Your task to perform on an android device: change keyboard looks Image 0: 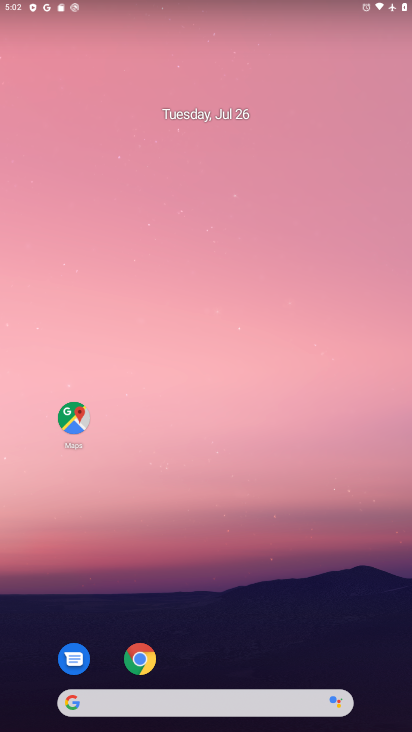
Step 0: drag from (214, 660) to (228, 0)
Your task to perform on an android device: change keyboard looks Image 1: 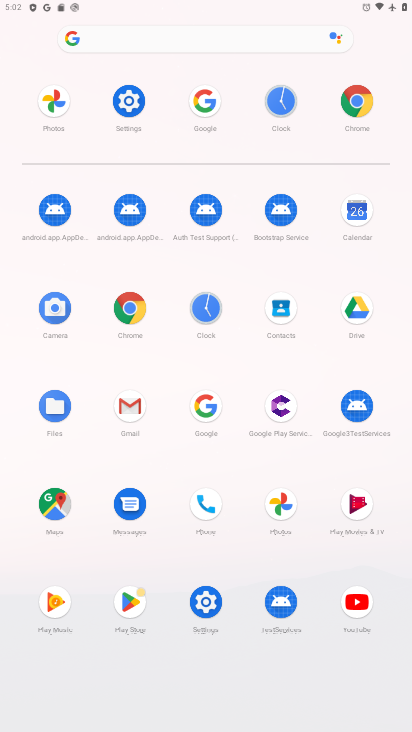
Step 1: click (121, 99)
Your task to perform on an android device: change keyboard looks Image 2: 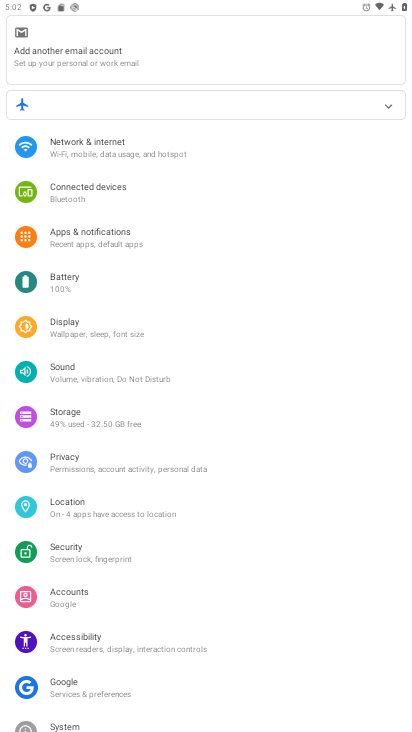
Step 2: drag from (154, 672) to (183, 145)
Your task to perform on an android device: change keyboard looks Image 3: 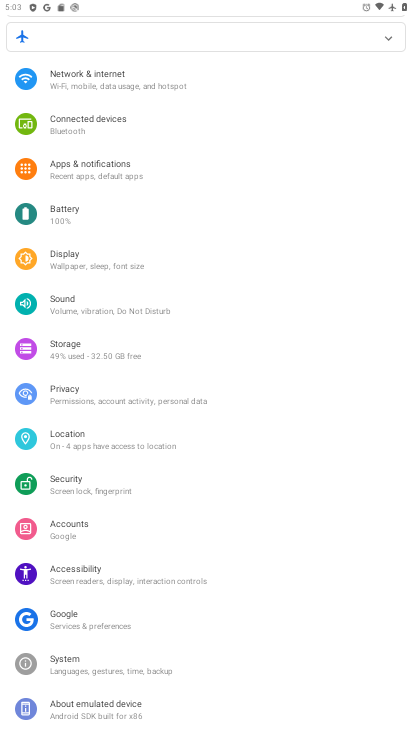
Step 3: click (98, 652)
Your task to perform on an android device: change keyboard looks Image 4: 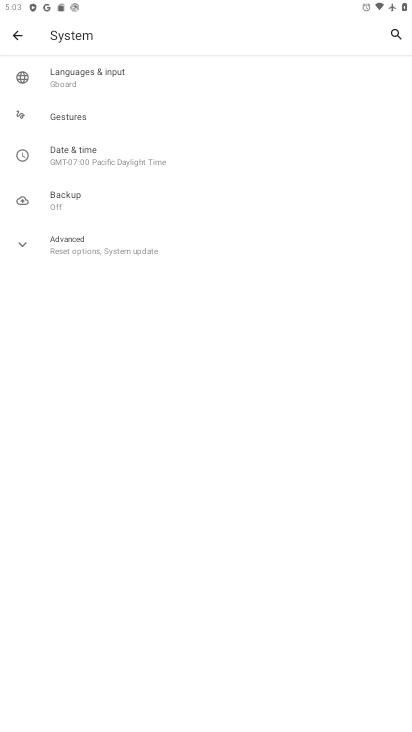
Step 4: click (13, 241)
Your task to perform on an android device: change keyboard looks Image 5: 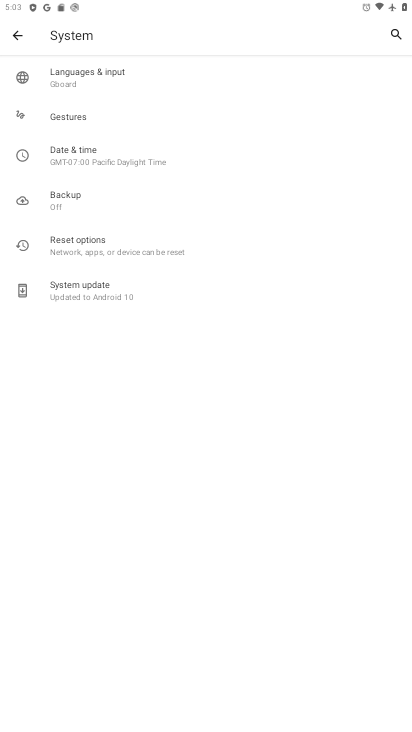
Step 5: click (95, 70)
Your task to perform on an android device: change keyboard looks Image 6: 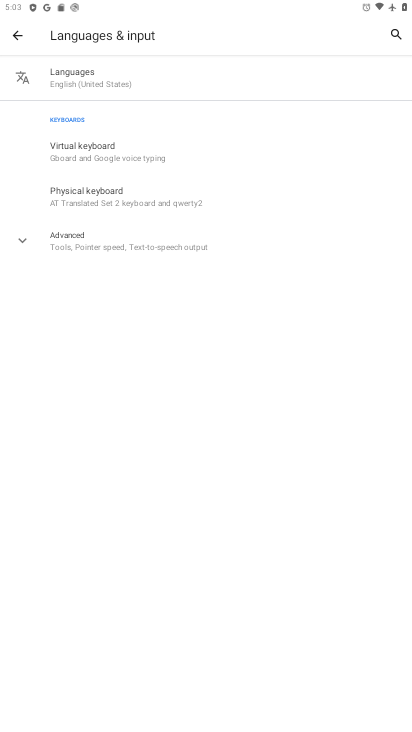
Step 6: click (98, 155)
Your task to perform on an android device: change keyboard looks Image 7: 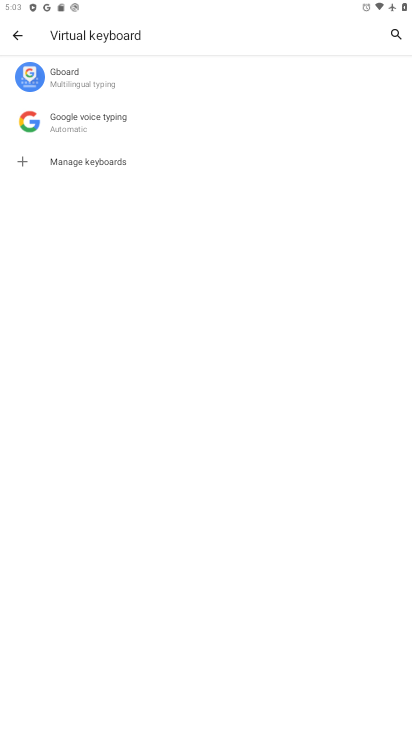
Step 7: click (89, 80)
Your task to perform on an android device: change keyboard looks Image 8: 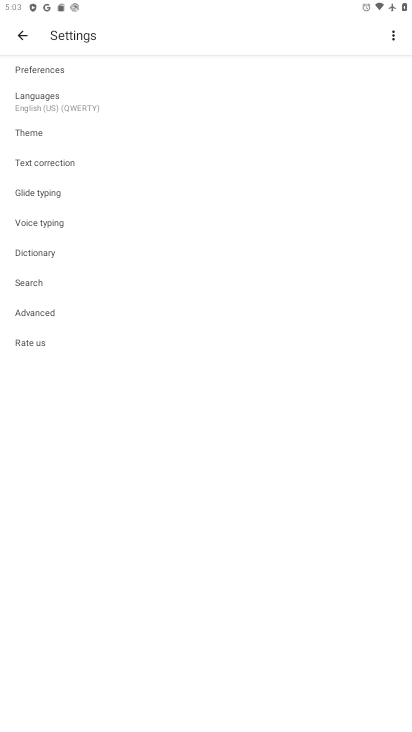
Step 8: click (53, 128)
Your task to perform on an android device: change keyboard looks Image 9: 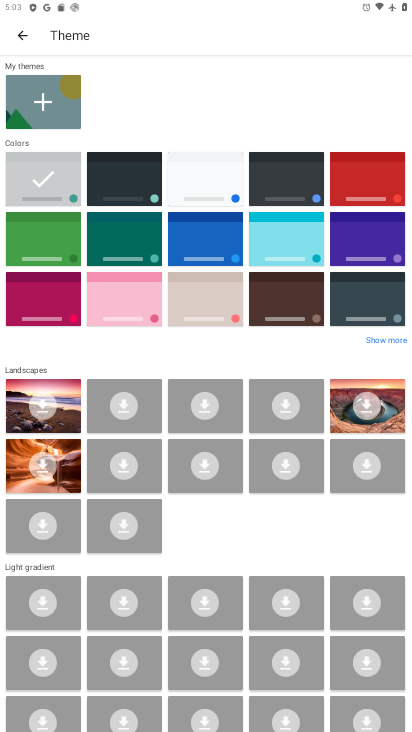
Step 9: click (195, 291)
Your task to perform on an android device: change keyboard looks Image 10: 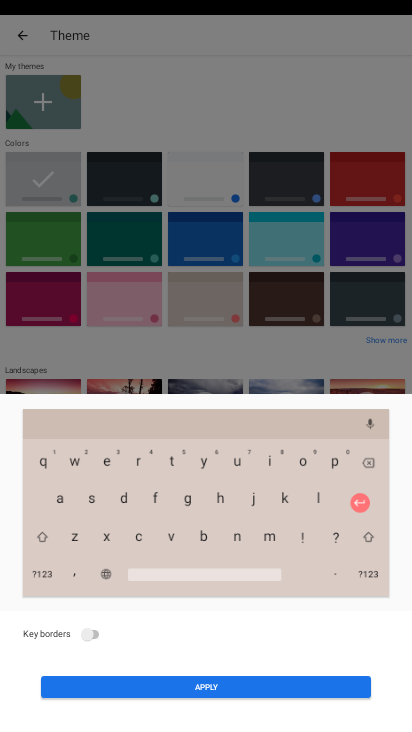
Step 10: click (213, 689)
Your task to perform on an android device: change keyboard looks Image 11: 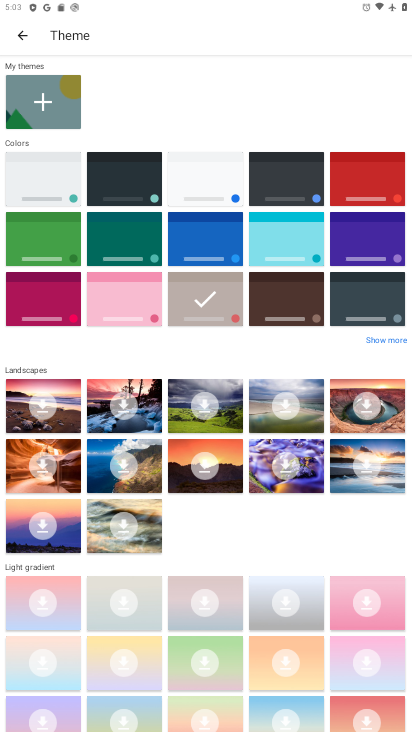
Step 11: task complete